Your task to perform on an android device: check out phone information Image 0: 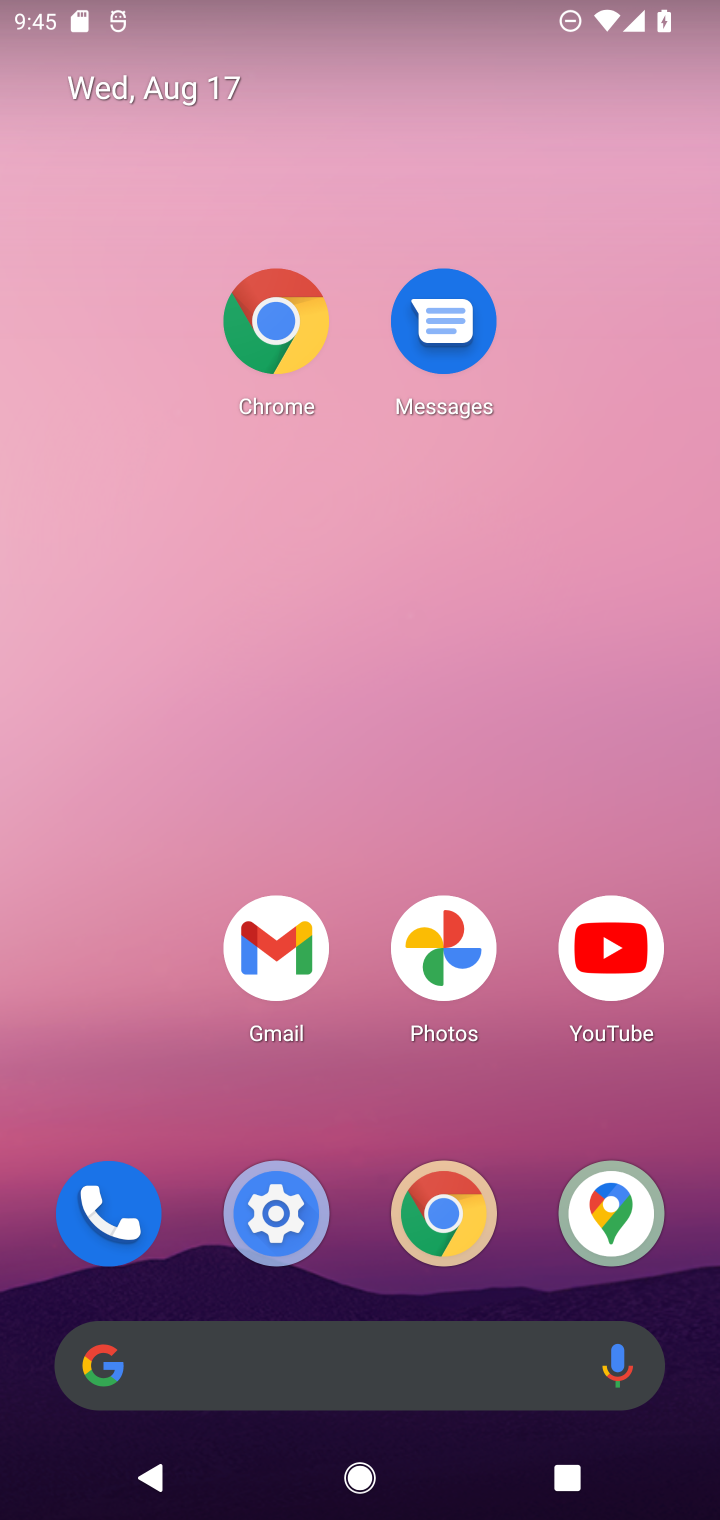
Step 0: click (294, 1263)
Your task to perform on an android device: check out phone information Image 1: 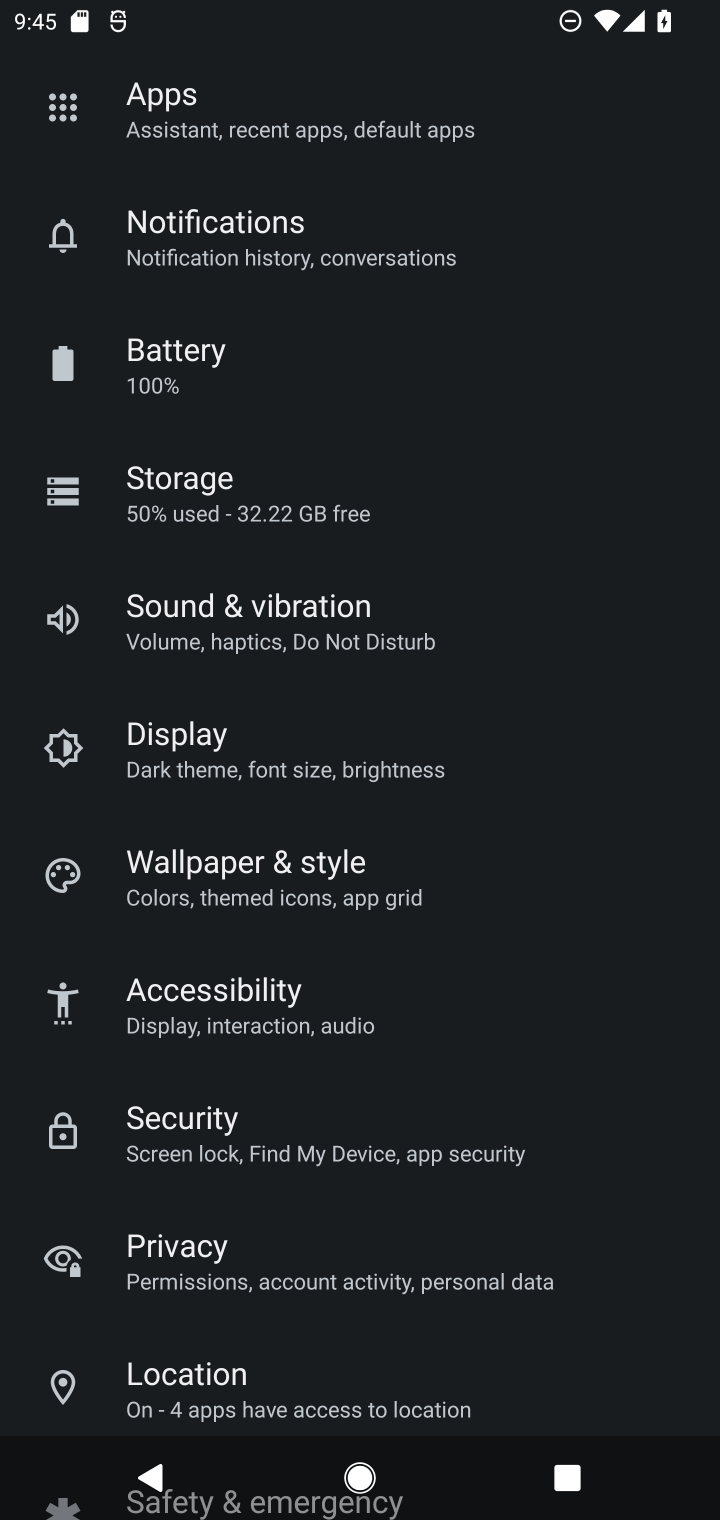
Step 1: task complete